Your task to perform on an android device: turn on data saver in the chrome app Image 0: 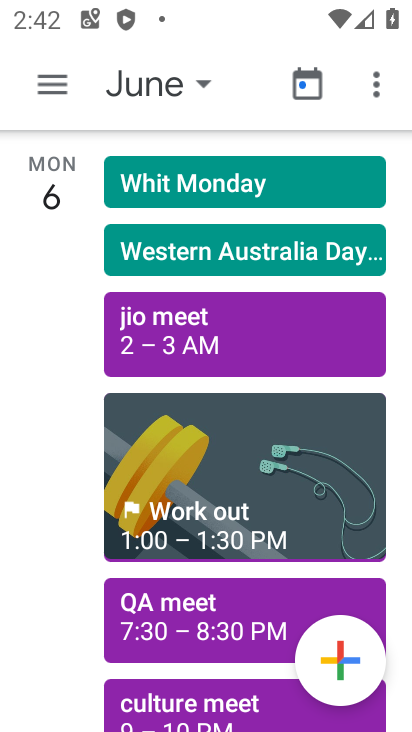
Step 0: press home button
Your task to perform on an android device: turn on data saver in the chrome app Image 1: 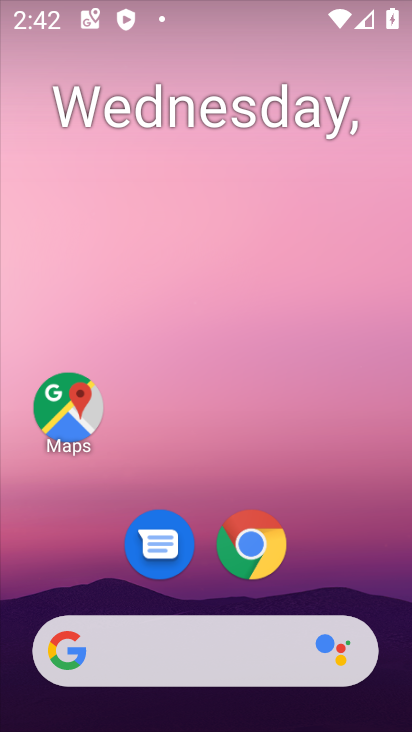
Step 1: drag from (364, 525) to (355, 142)
Your task to perform on an android device: turn on data saver in the chrome app Image 2: 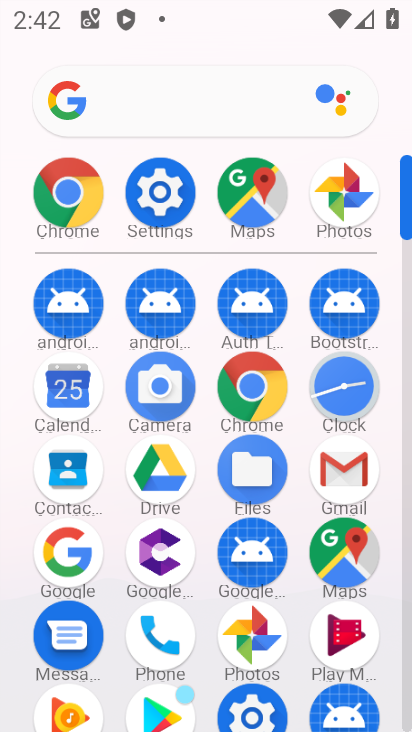
Step 2: click (251, 400)
Your task to perform on an android device: turn on data saver in the chrome app Image 3: 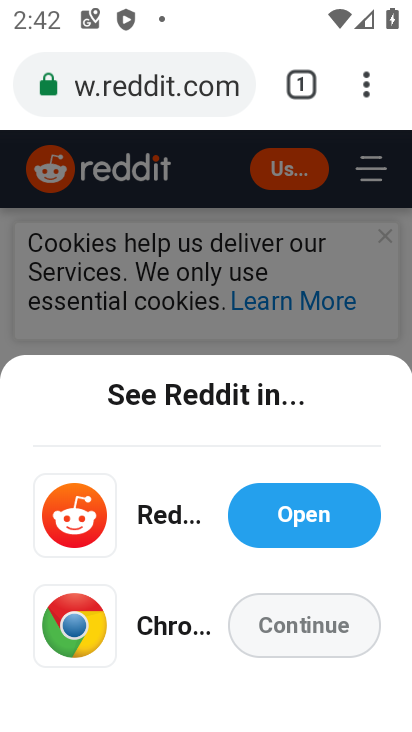
Step 3: drag from (378, 97) to (201, 589)
Your task to perform on an android device: turn on data saver in the chrome app Image 4: 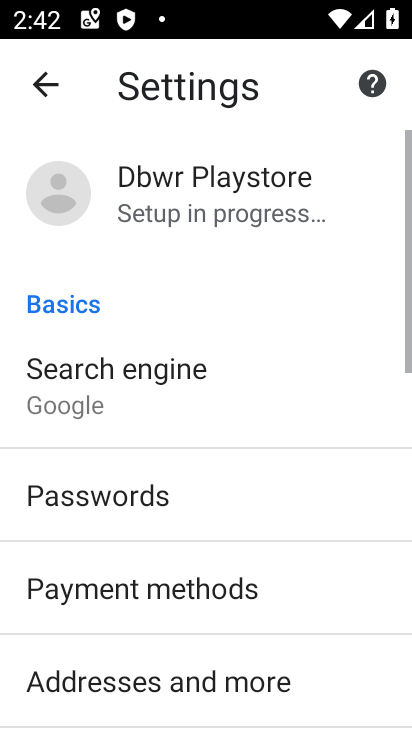
Step 4: drag from (237, 626) to (256, 233)
Your task to perform on an android device: turn on data saver in the chrome app Image 5: 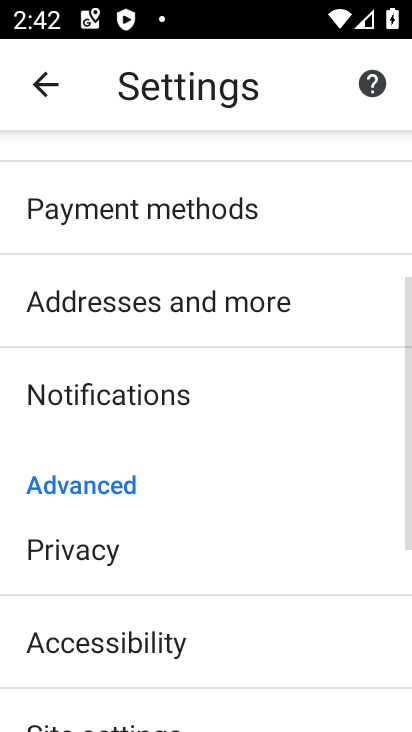
Step 5: drag from (225, 642) to (265, 312)
Your task to perform on an android device: turn on data saver in the chrome app Image 6: 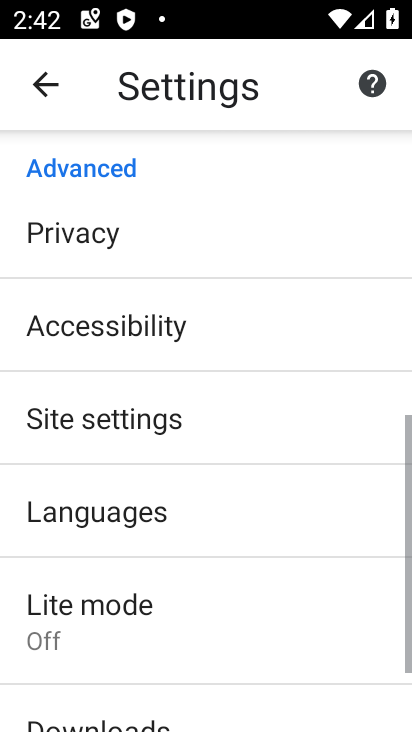
Step 6: drag from (237, 636) to (275, 359)
Your task to perform on an android device: turn on data saver in the chrome app Image 7: 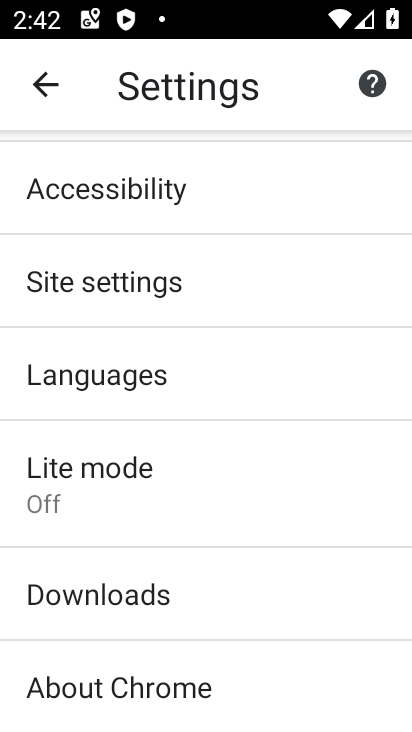
Step 7: click (165, 482)
Your task to perform on an android device: turn on data saver in the chrome app Image 8: 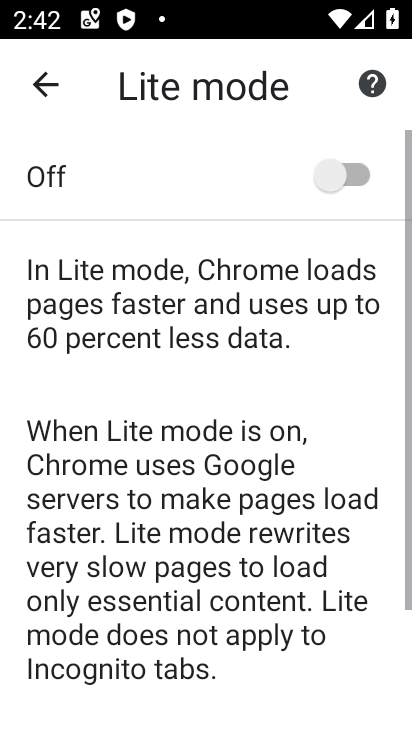
Step 8: click (360, 167)
Your task to perform on an android device: turn on data saver in the chrome app Image 9: 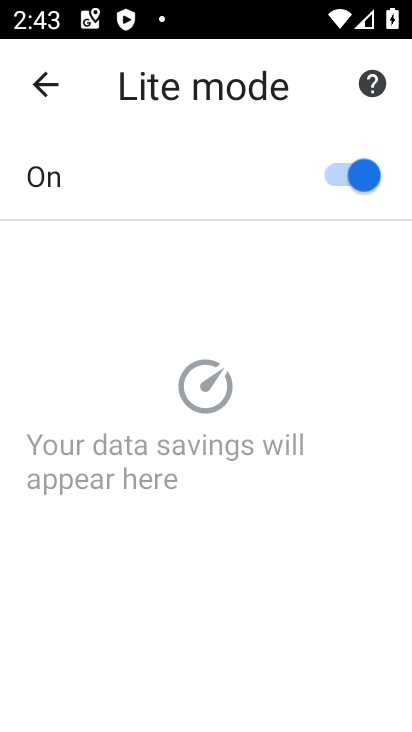
Step 9: task complete